Your task to perform on an android device: Turn on the flashlight Image 0: 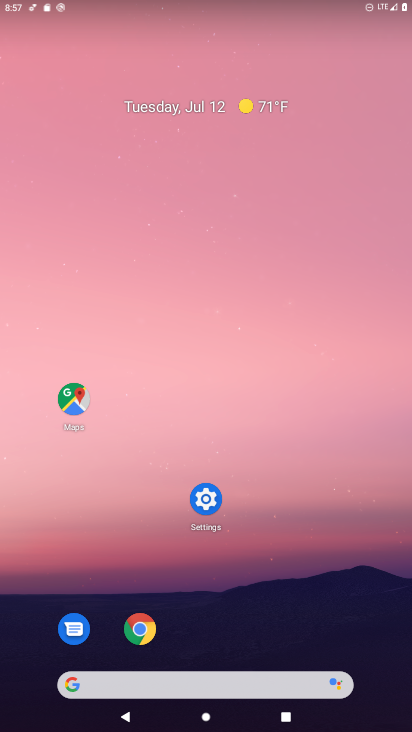
Step 0: click (205, 499)
Your task to perform on an android device: Turn on the flashlight Image 1: 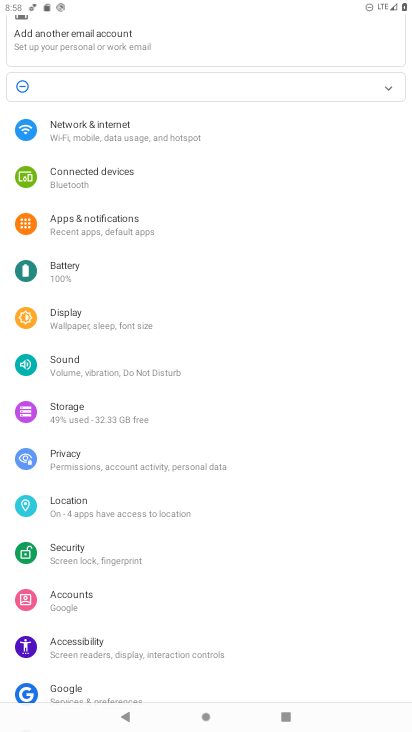
Step 1: click (84, 316)
Your task to perform on an android device: Turn on the flashlight Image 2: 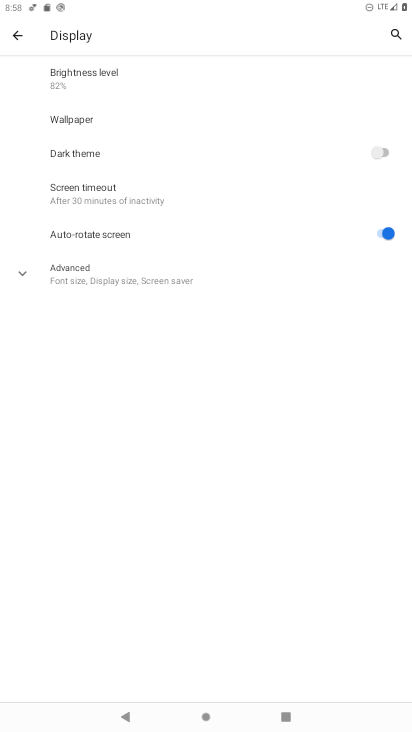
Step 2: task complete